Your task to perform on an android device: Go to display settings Image 0: 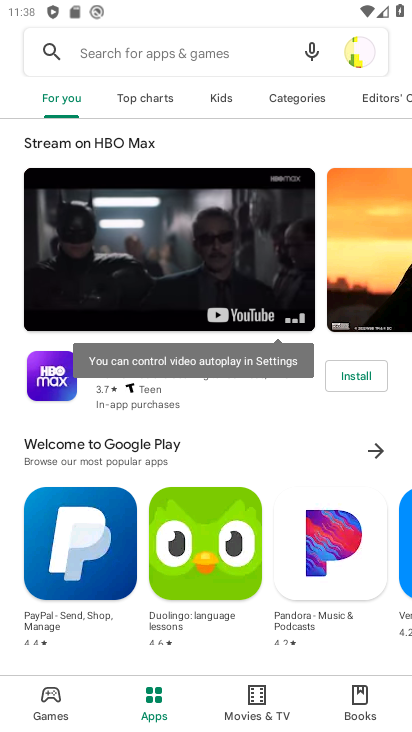
Step 0: press home button
Your task to perform on an android device: Go to display settings Image 1: 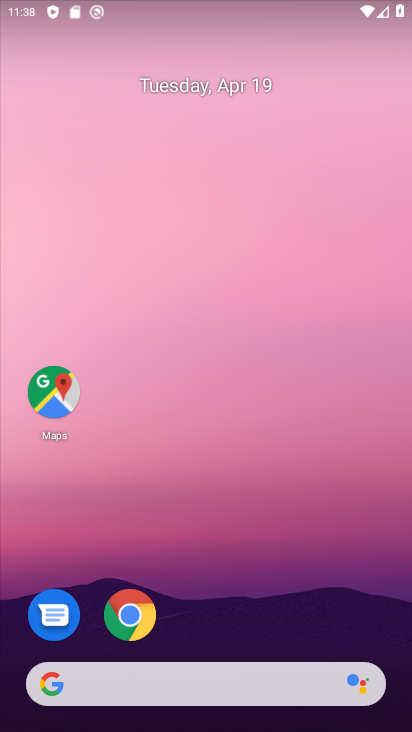
Step 1: drag from (235, 444) to (243, 169)
Your task to perform on an android device: Go to display settings Image 2: 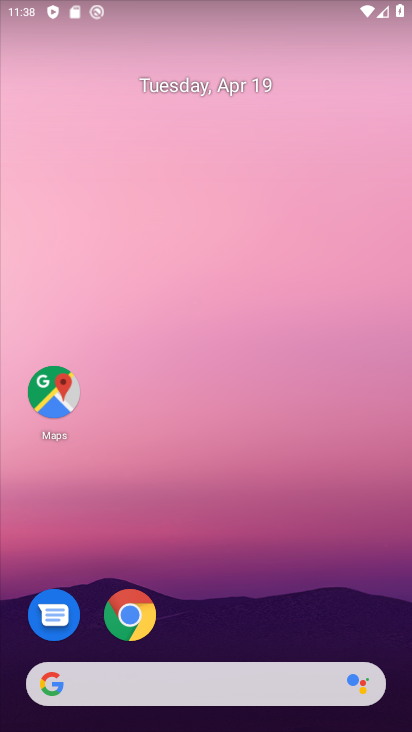
Step 2: drag from (230, 506) to (232, 116)
Your task to perform on an android device: Go to display settings Image 3: 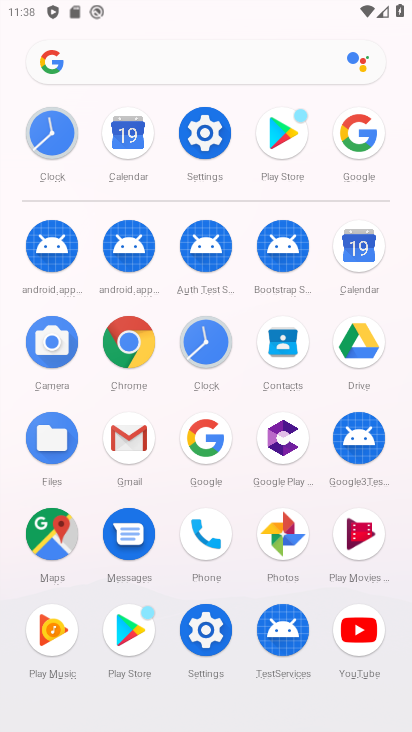
Step 3: click (203, 128)
Your task to perform on an android device: Go to display settings Image 4: 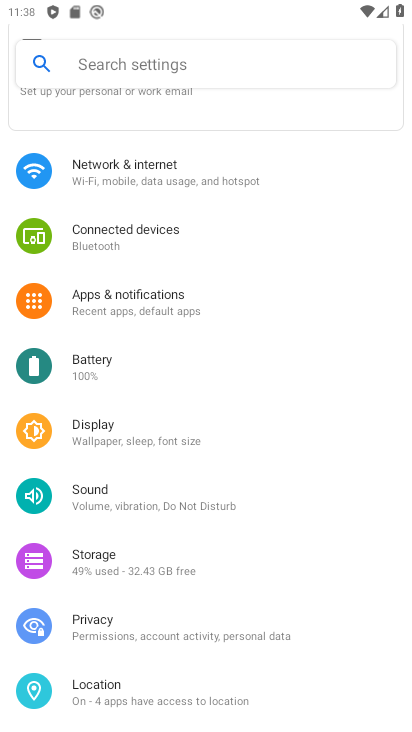
Step 4: click (132, 432)
Your task to perform on an android device: Go to display settings Image 5: 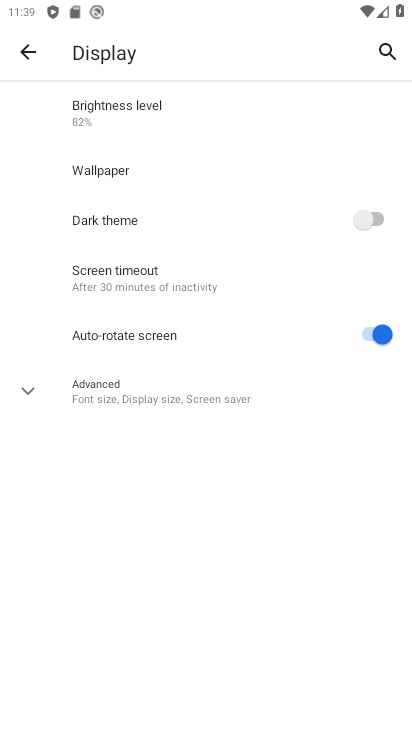
Step 5: task complete